Your task to perform on an android device: What is the news today? Image 0: 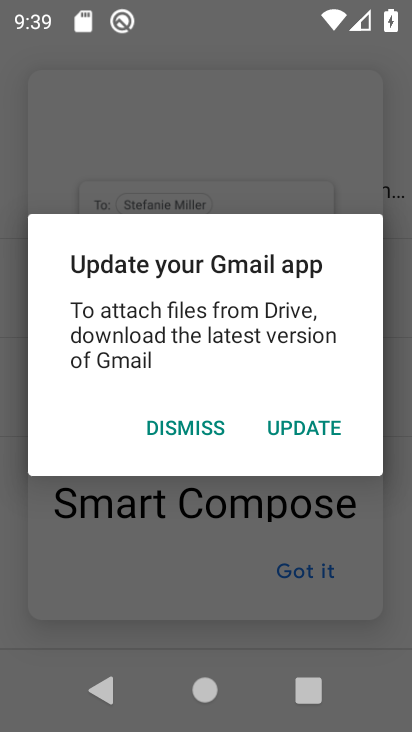
Step 0: press home button
Your task to perform on an android device: What is the news today? Image 1: 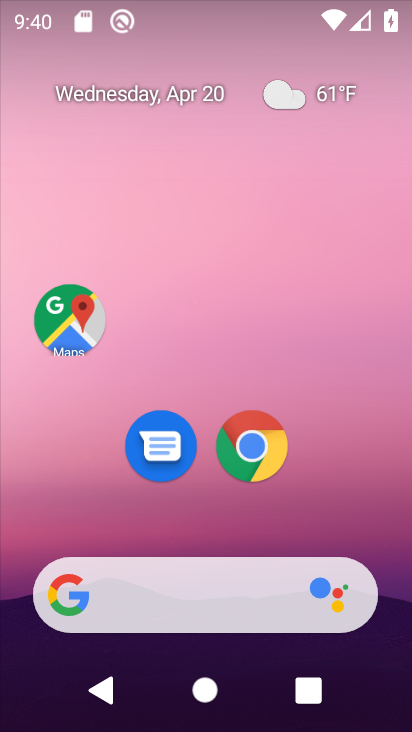
Step 1: drag from (346, 498) to (363, 125)
Your task to perform on an android device: What is the news today? Image 2: 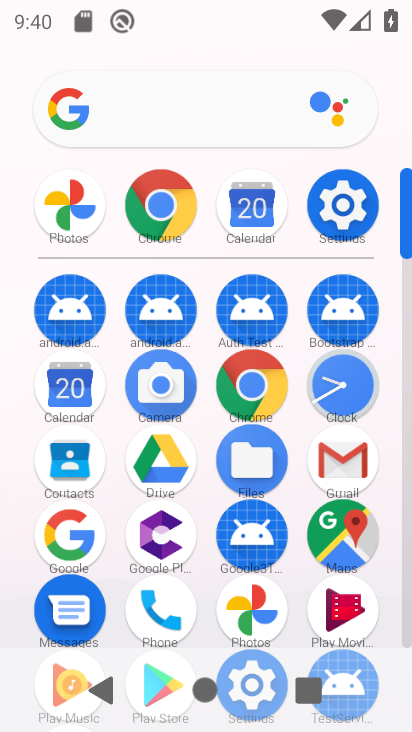
Step 2: drag from (300, 554) to (283, 302)
Your task to perform on an android device: What is the news today? Image 3: 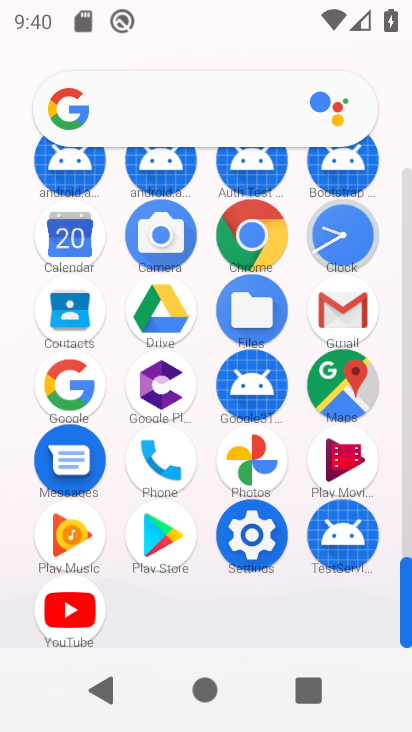
Step 3: click (262, 228)
Your task to perform on an android device: What is the news today? Image 4: 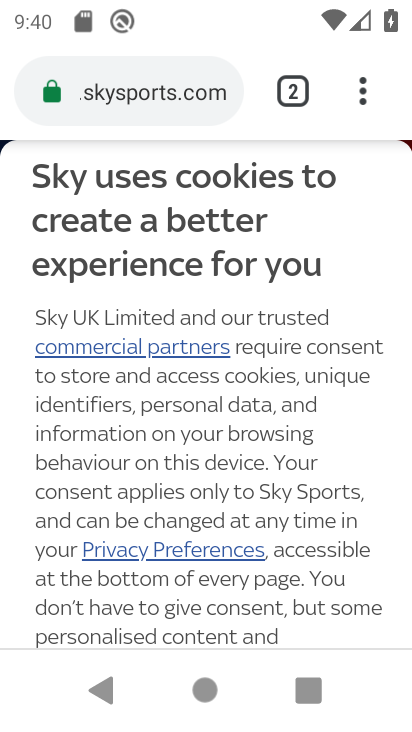
Step 4: click (196, 100)
Your task to perform on an android device: What is the news today? Image 5: 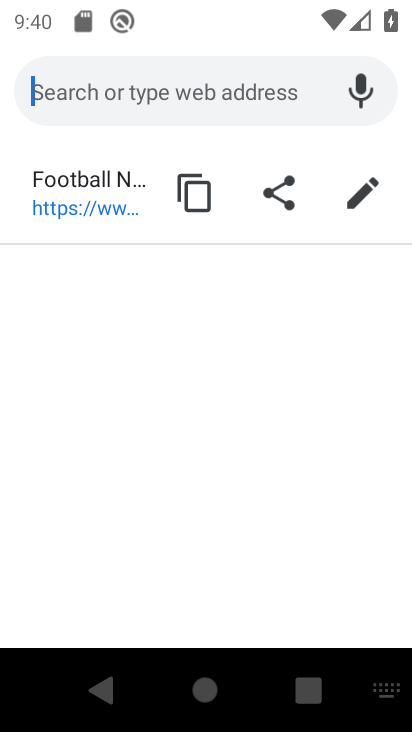
Step 5: type "news today"
Your task to perform on an android device: What is the news today? Image 6: 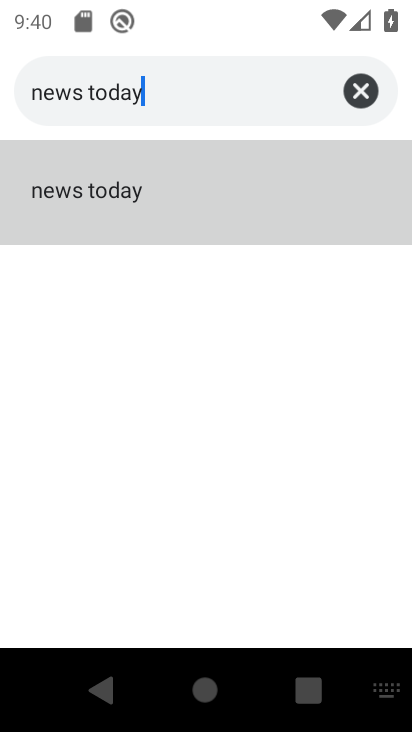
Step 6: click (99, 194)
Your task to perform on an android device: What is the news today? Image 7: 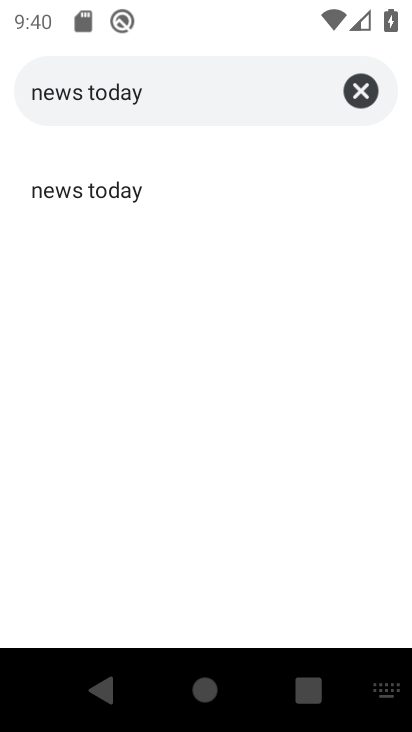
Step 7: click (97, 195)
Your task to perform on an android device: What is the news today? Image 8: 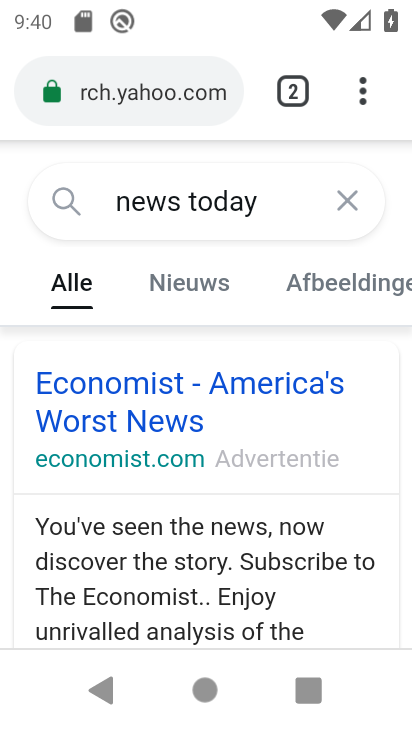
Step 8: click (84, 412)
Your task to perform on an android device: What is the news today? Image 9: 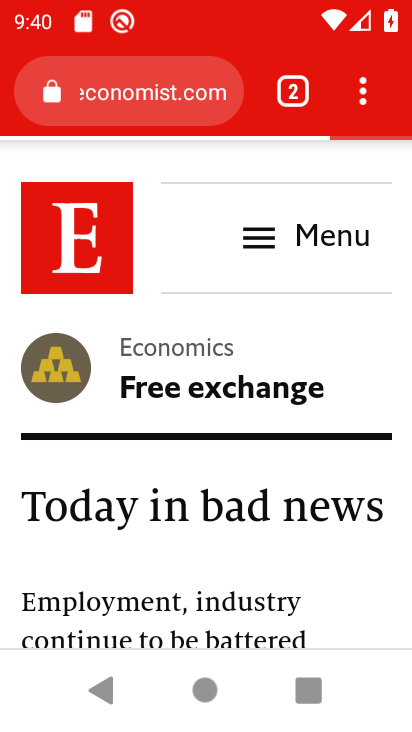
Step 9: task complete